Your task to perform on an android device: allow cookies in the chrome app Image 0: 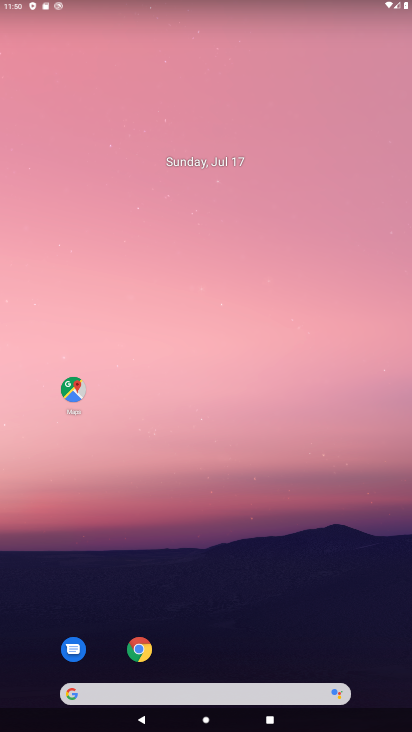
Step 0: click (139, 645)
Your task to perform on an android device: allow cookies in the chrome app Image 1: 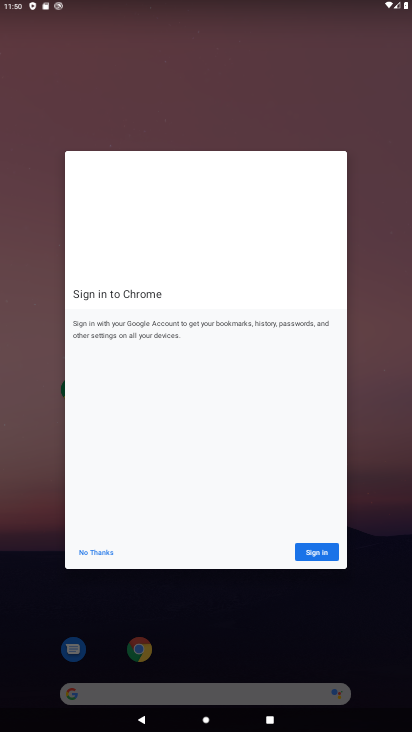
Step 1: click (294, 551)
Your task to perform on an android device: allow cookies in the chrome app Image 2: 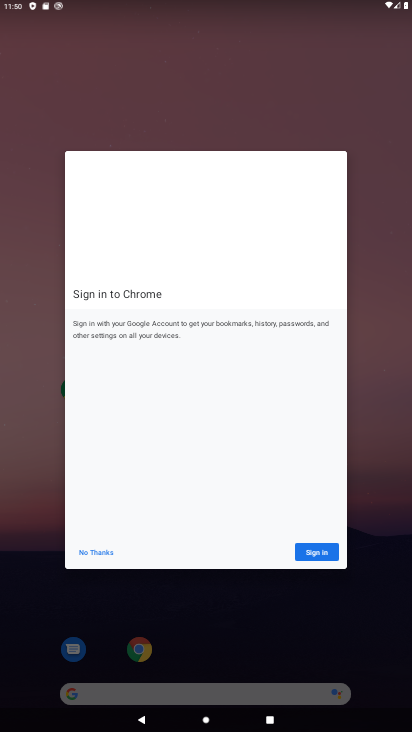
Step 2: click (90, 552)
Your task to perform on an android device: allow cookies in the chrome app Image 3: 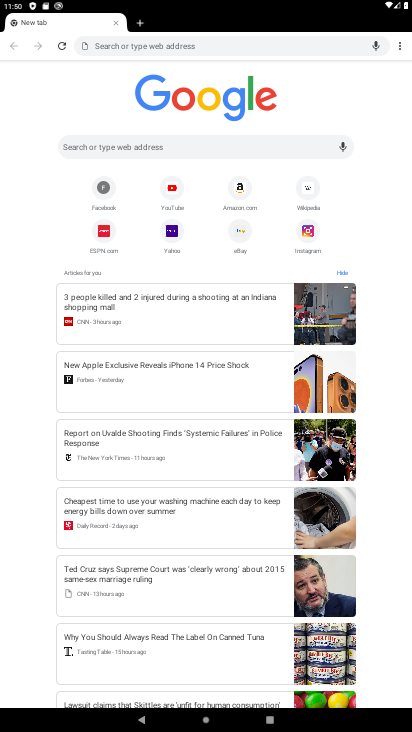
Step 3: click (399, 42)
Your task to perform on an android device: allow cookies in the chrome app Image 4: 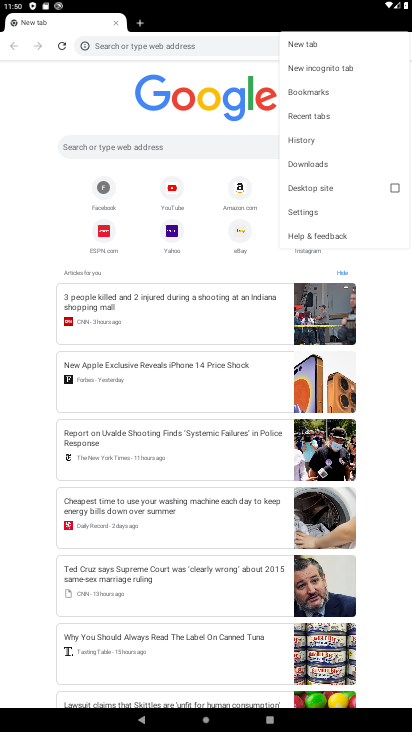
Step 4: click (310, 205)
Your task to perform on an android device: allow cookies in the chrome app Image 5: 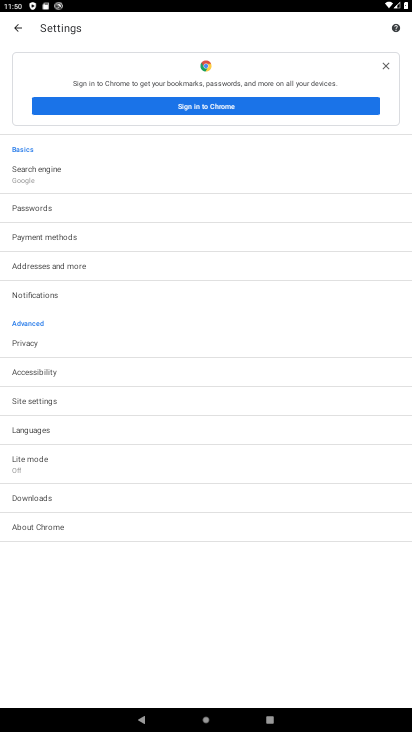
Step 5: click (45, 398)
Your task to perform on an android device: allow cookies in the chrome app Image 6: 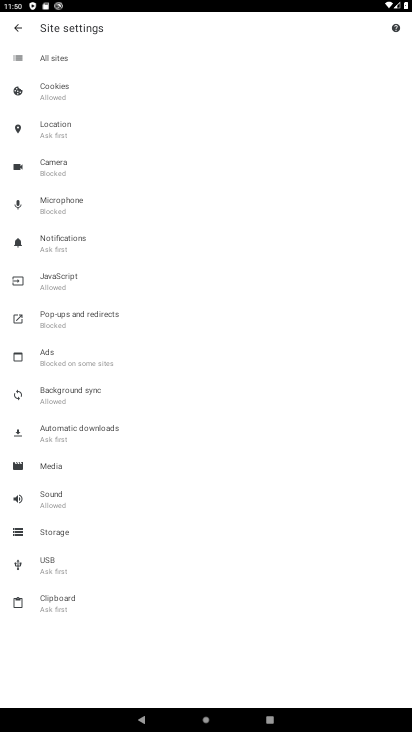
Step 6: click (82, 92)
Your task to perform on an android device: allow cookies in the chrome app Image 7: 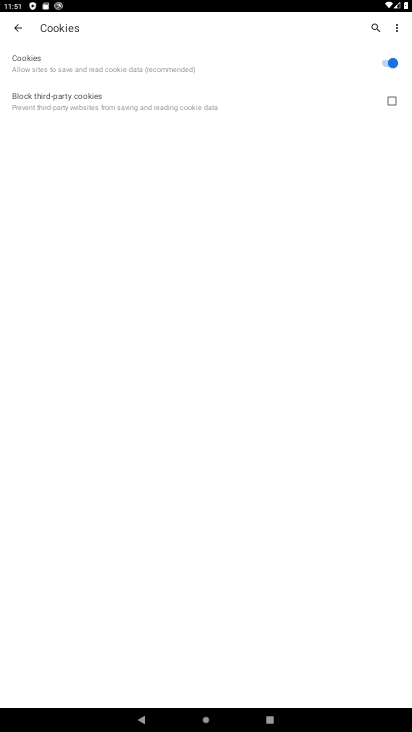
Step 7: task complete